Your task to perform on an android device: move a message to another label in the gmail app Image 0: 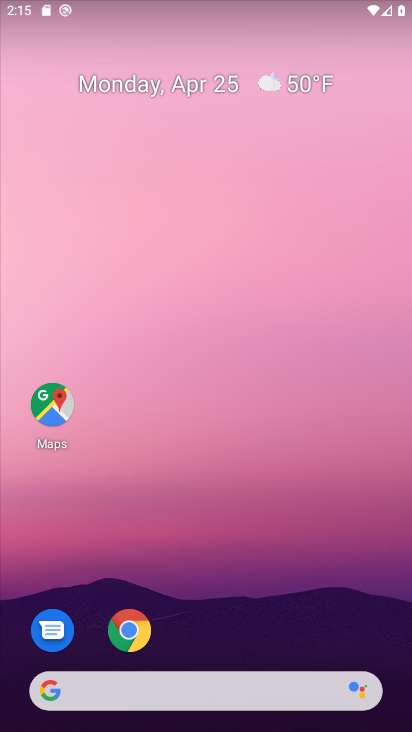
Step 0: drag from (231, 597) to (222, 154)
Your task to perform on an android device: move a message to another label in the gmail app Image 1: 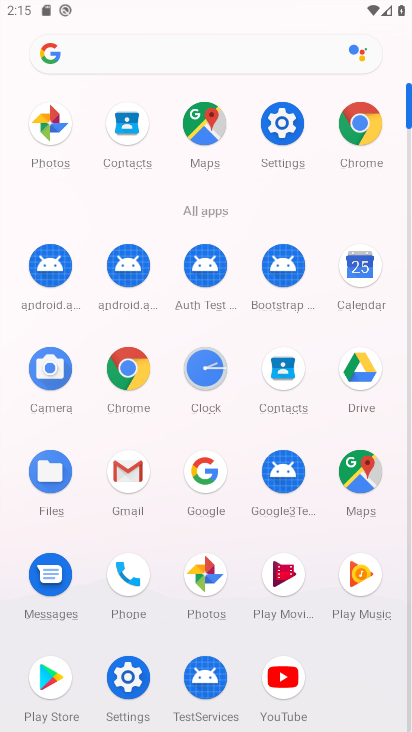
Step 1: click (126, 457)
Your task to perform on an android device: move a message to another label in the gmail app Image 2: 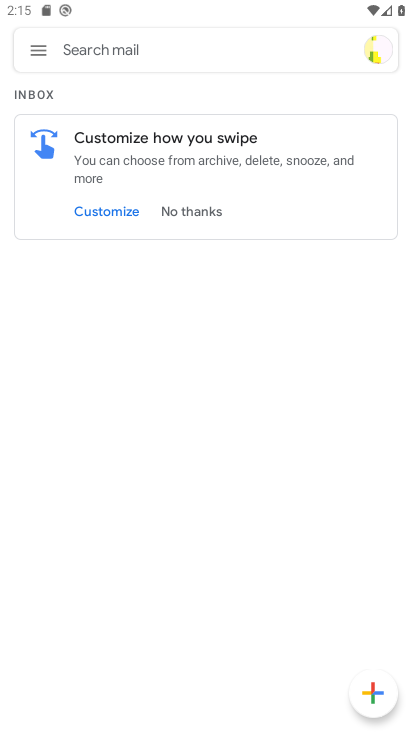
Step 2: click (35, 43)
Your task to perform on an android device: move a message to another label in the gmail app Image 3: 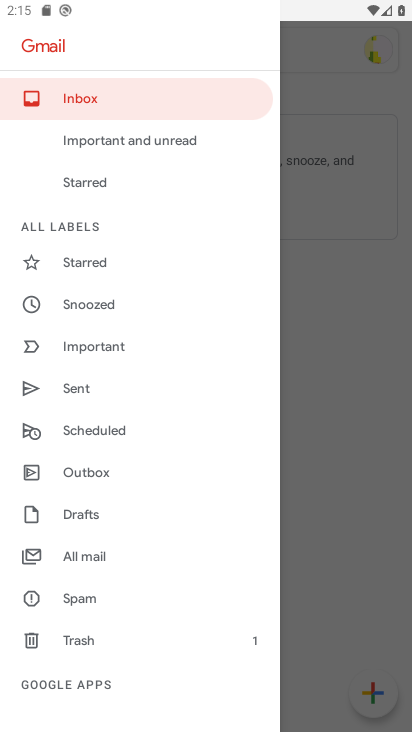
Step 3: click (76, 549)
Your task to perform on an android device: move a message to another label in the gmail app Image 4: 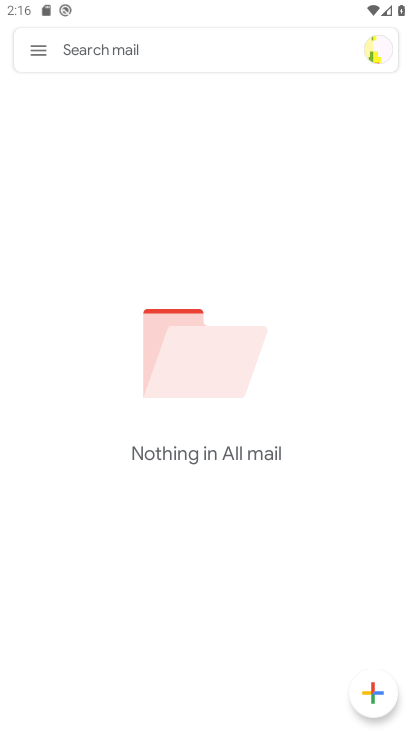
Step 4: task complete